Your task to perform on an android device: see creations saved in the google photos Image 0: 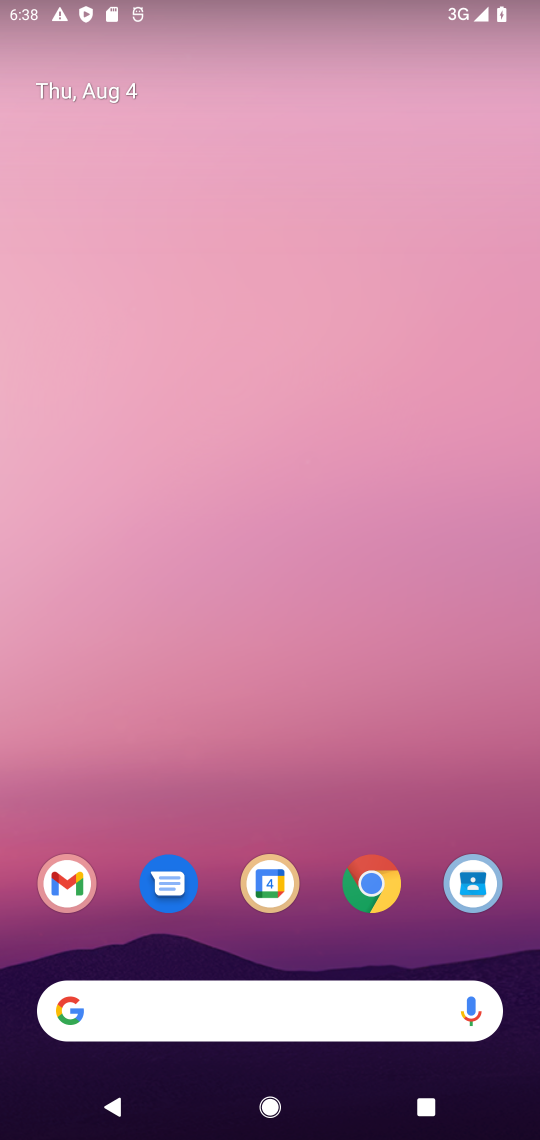
Step 0: drag from (292, 816) to (93, 16)
Your task to perform on an android device: see creations saved in the google photos Image 1: 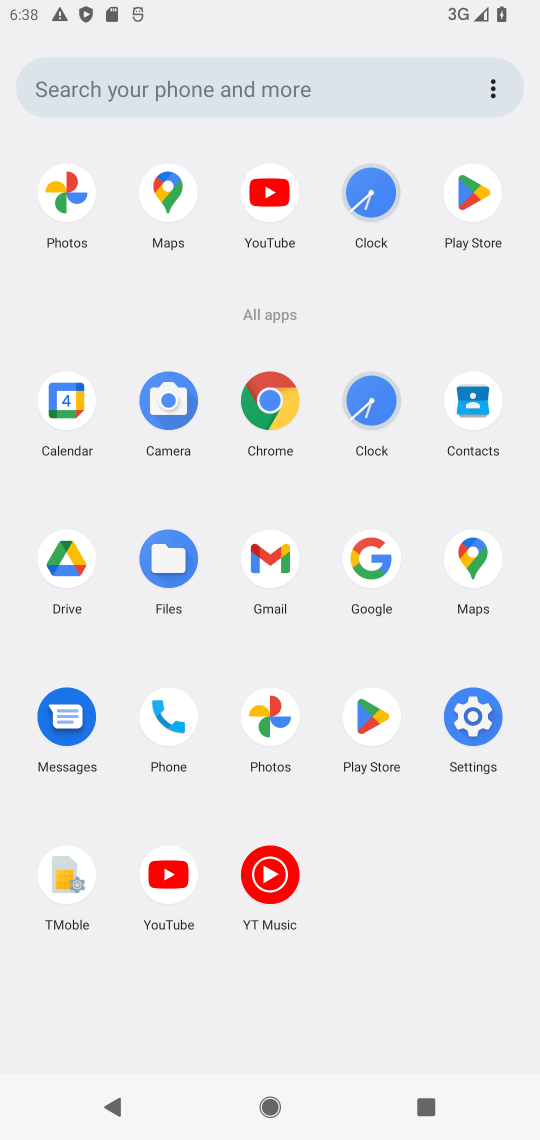
Step 1: click (259, 718)
Your task to perform on an android device: see creations saved in the google photos Image 2: 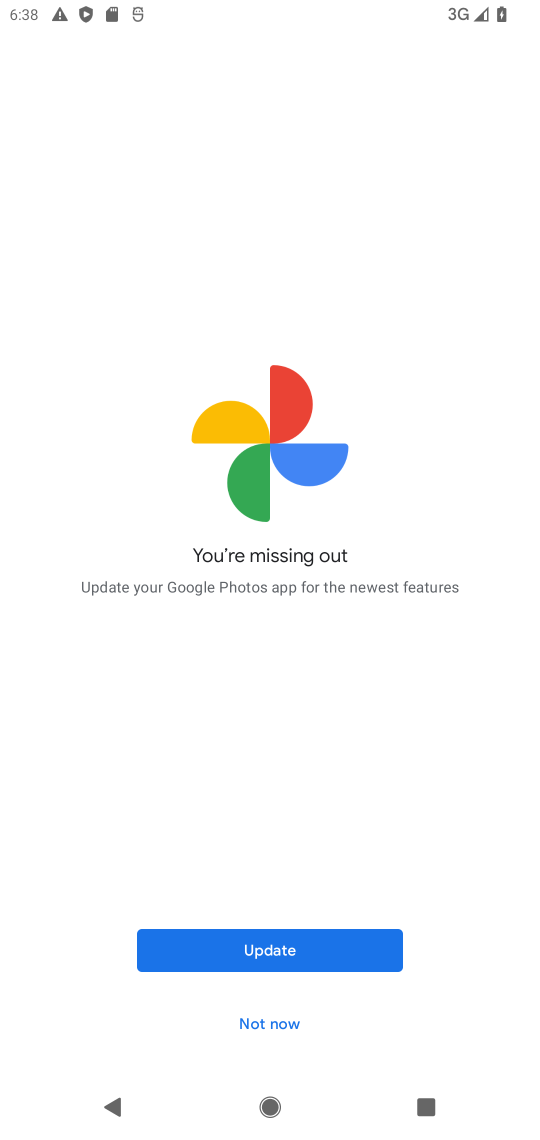
Step 2: click (265, 967)
Your task to perform on an android device: see creations saved in the google photos Image 3: 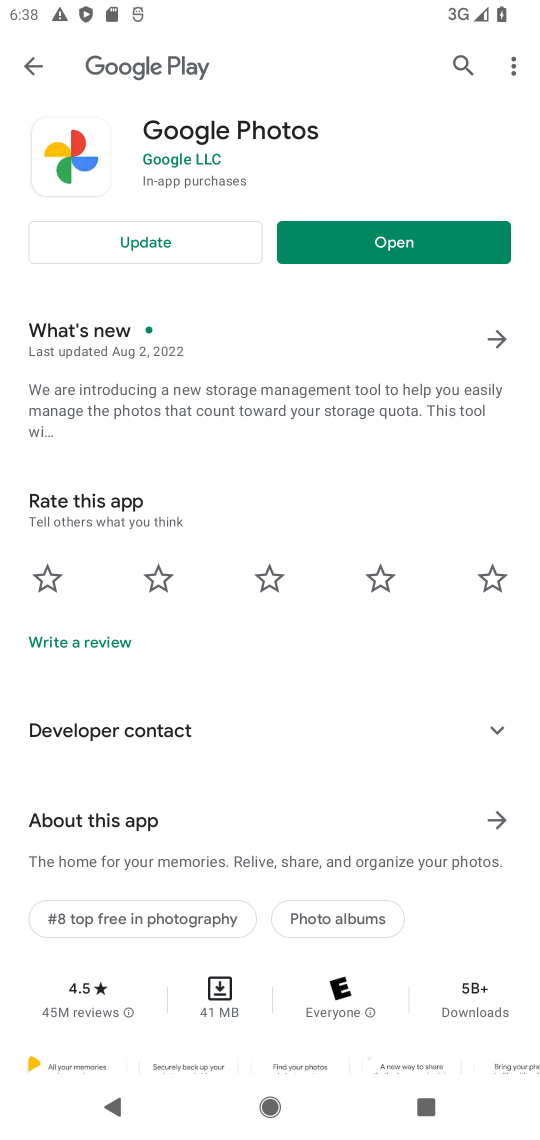
Step 3: click (167, 242)
Your task to perform on an android device: see creations saved in the google photos Image 4: 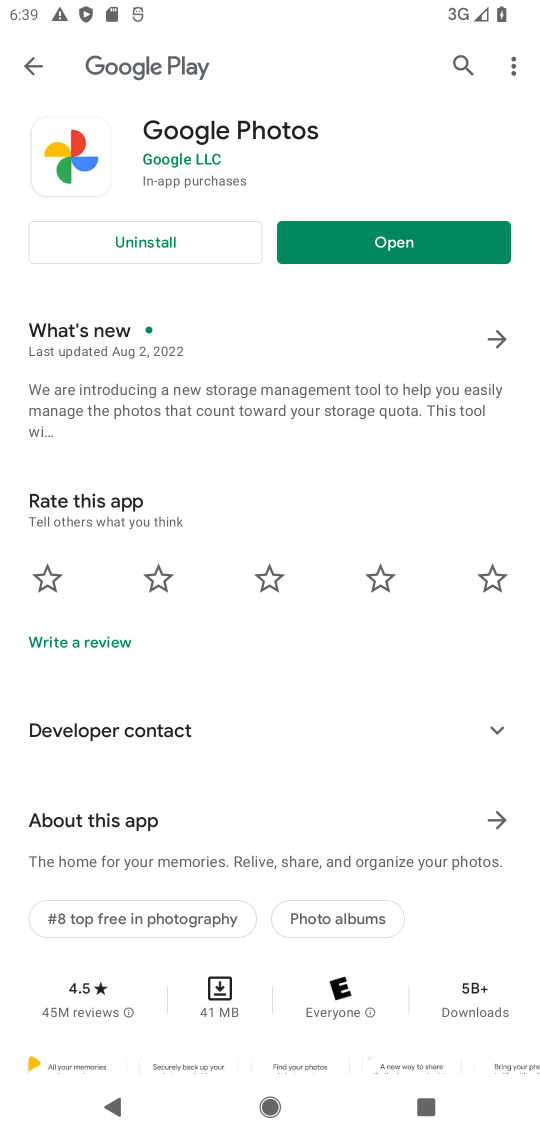
Step 4: click (396, 239)
Your task to perform on an android device: see creations saved in the google photos Image 5: 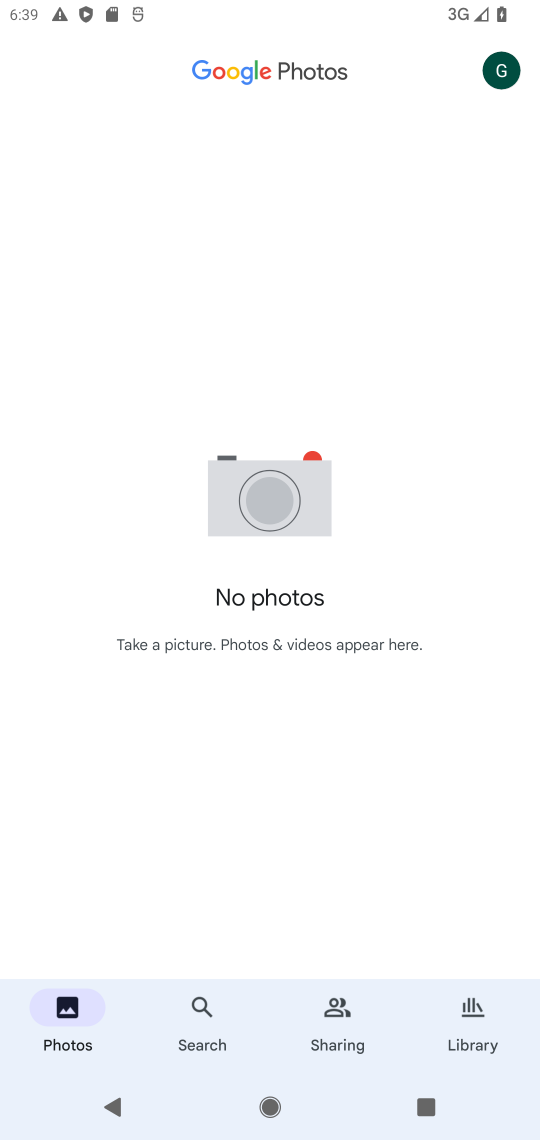
Step 5: click (191, 1017)
Your task to perform on an android device: see creations saved in the google photos Image 6: 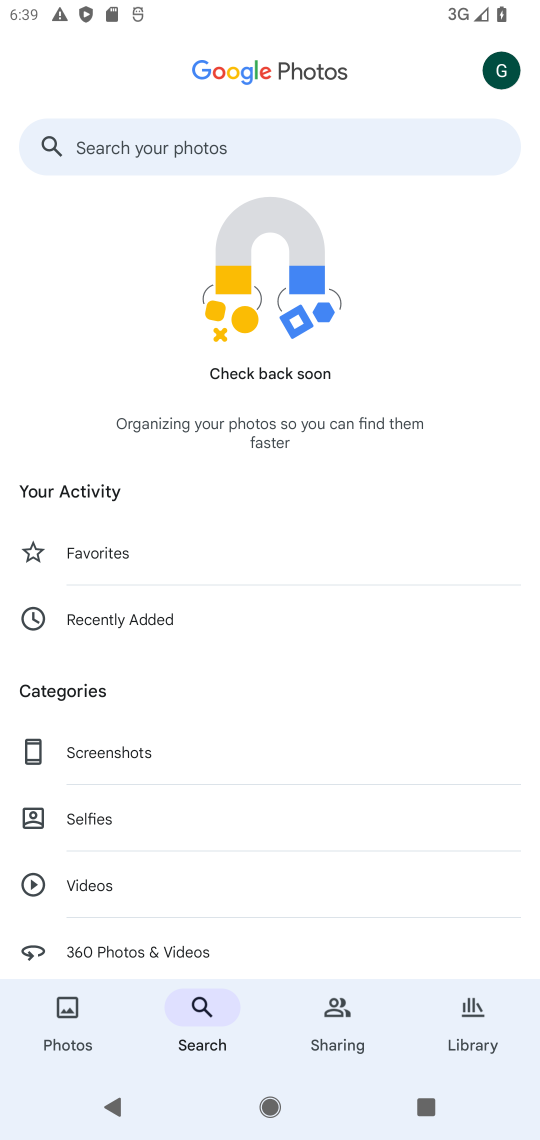
Step 6: drag from (135, 905) to (122, 372)
Your task to perform on an android device: see creations saved in the google photos Image 7: 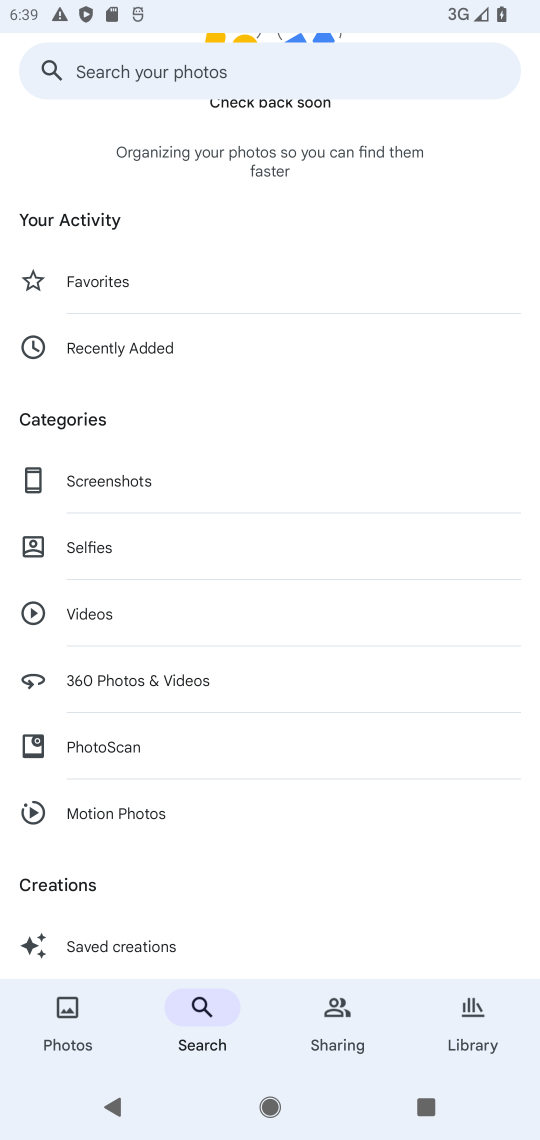
Step 7: click (164, 948)
Your task to perform on an android device: see creations saved in the google photos Image 8: 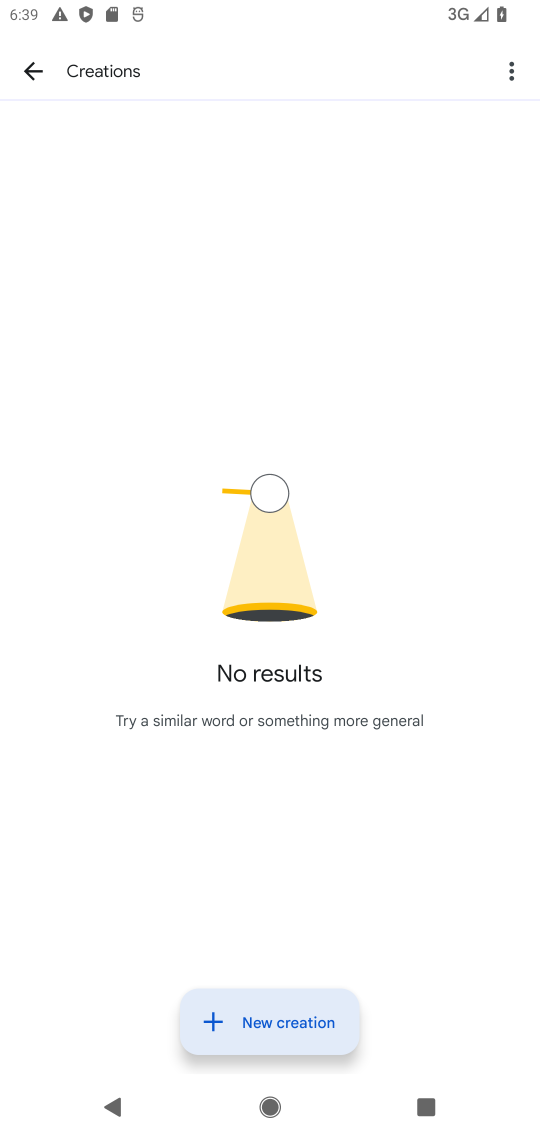
Step 8: task complete